Your task to perform on an android device: snooze an email in the gmail app Image 0: 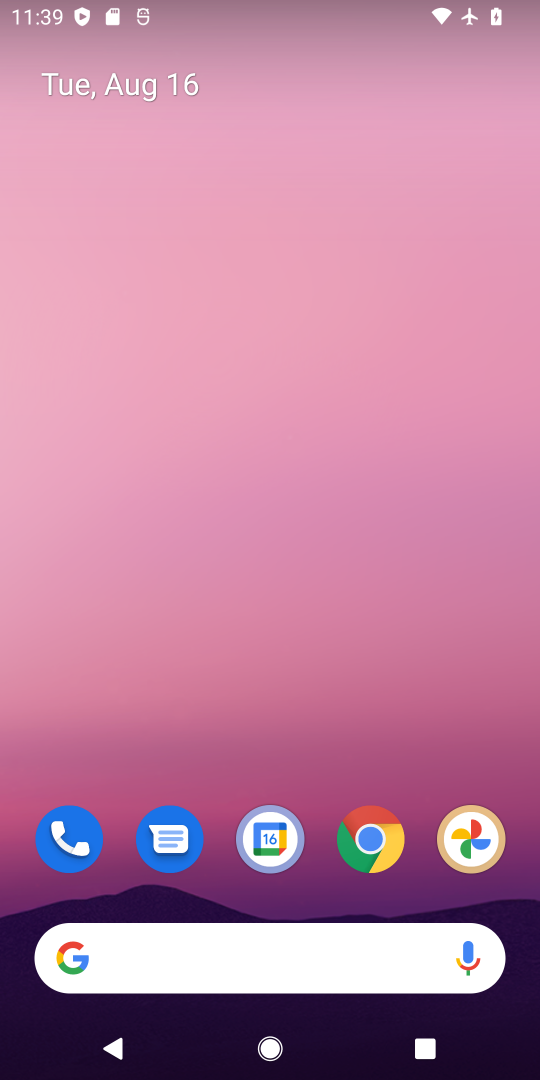
Step 0: drag from (233, 900) to (294, 114)
Your task to perform on an android device: snooze an email in the gmail app Image 1: 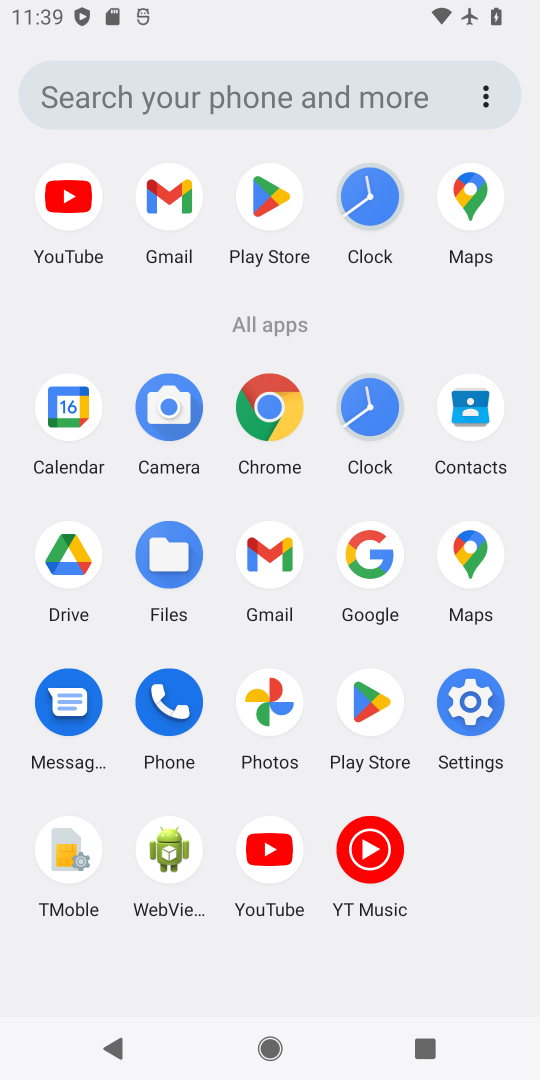
Step 1: click (277, 572)
Your task to perform on an android device: snooze an email in the gmail app Image 2: 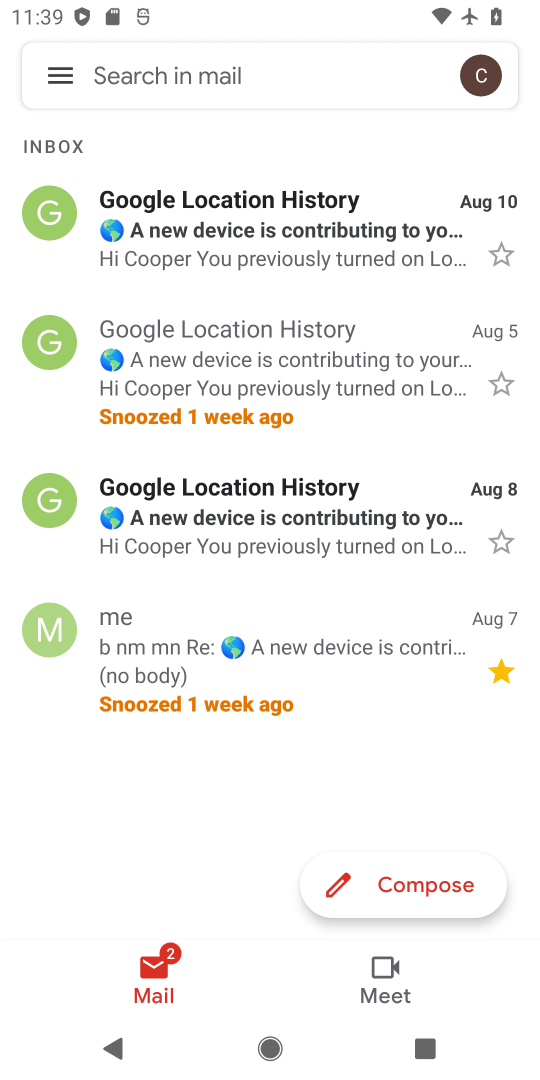
Step 2: click (43, 203)
Your task to perform on an android device: snooze an email in the gmail app Image 3: 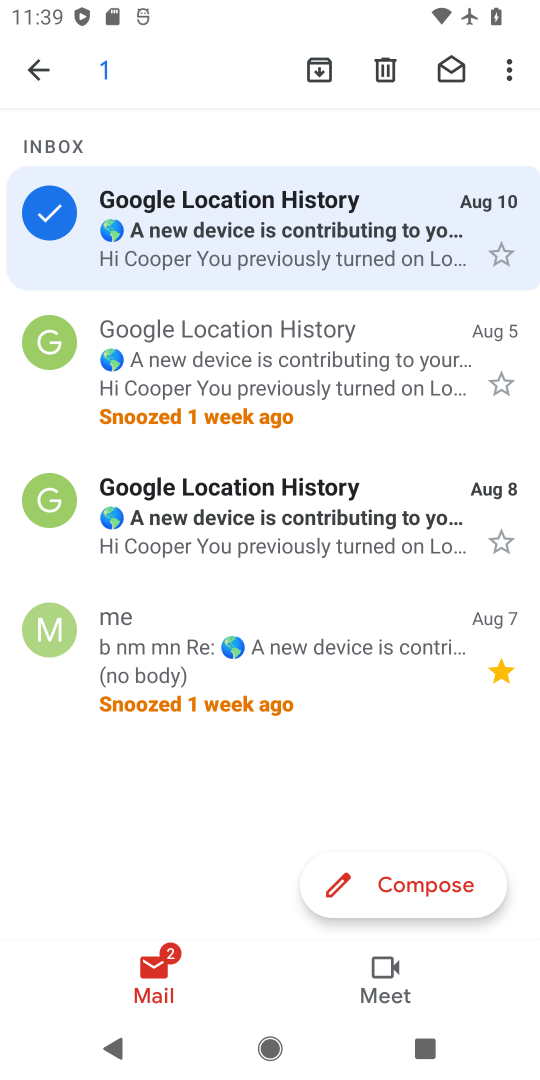
Step 3: click (506, 79)
Your task to perform on an android device: snooze an email in the gmail app Image 4: 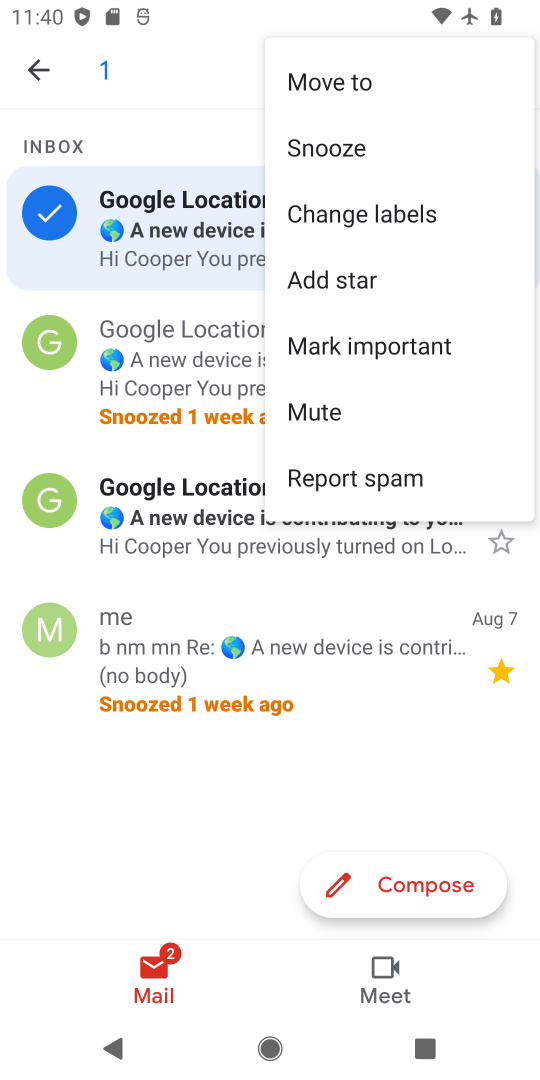
Step 4: click (353, 144)
Your task to perform on an android device: snooze an email in the gmail app Image 5: 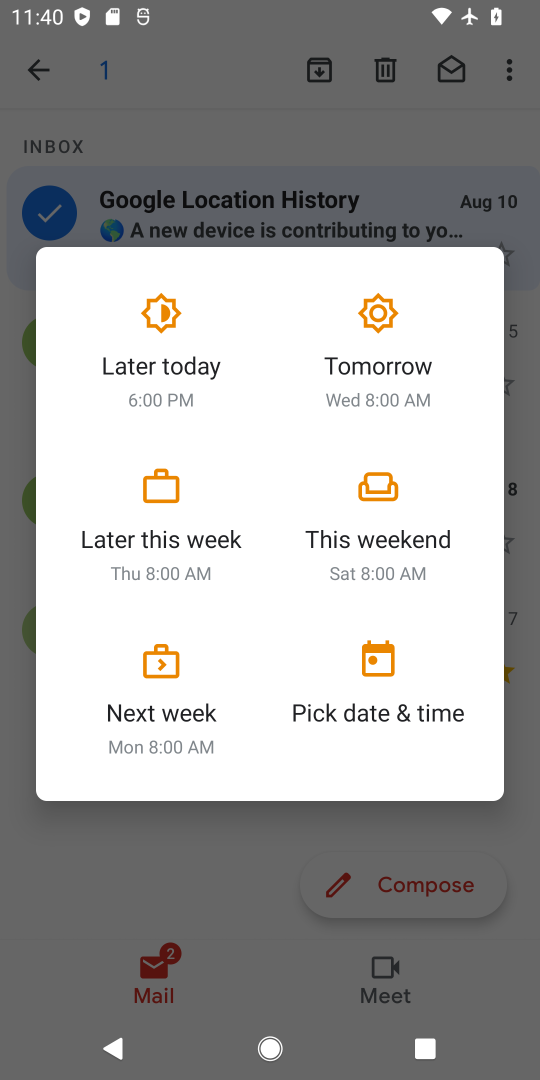
Step 5: click (165, 352)
Your task to perform on an android device: snooze an email in the gmail app Image 6: 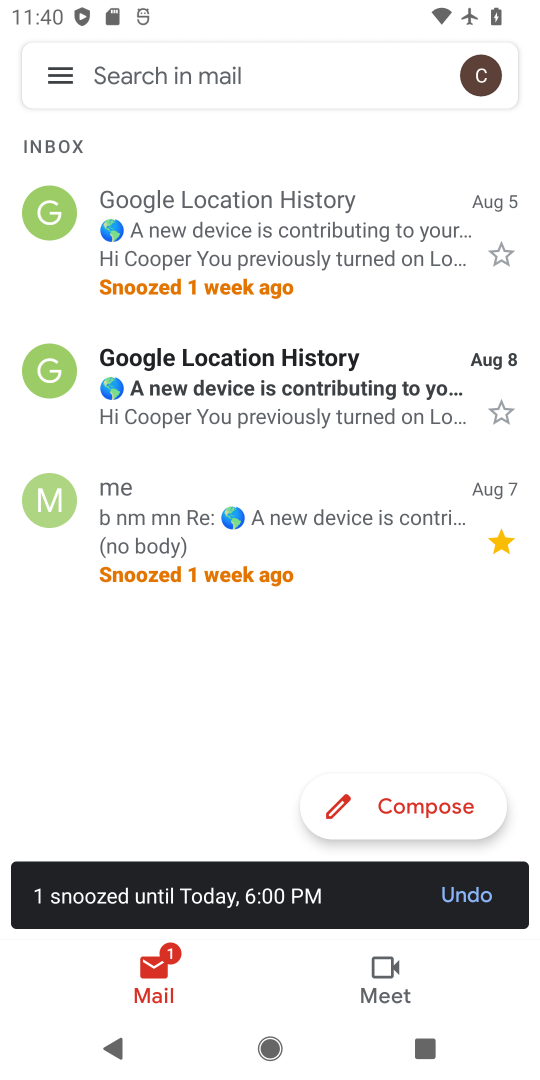
Step 6: task complete